Your task to perform on an android device: empty trash in the gmail app Image 0: 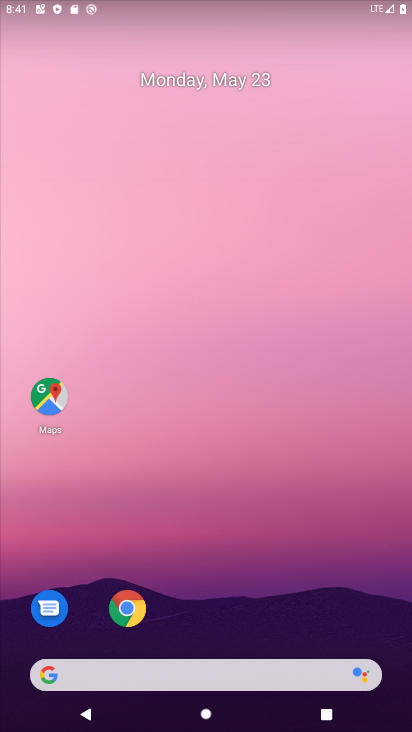
Step 0: drag from (245, 667) to (171, 26)
Your task to perform on an android device: empty trash in the gmail app Image 1: 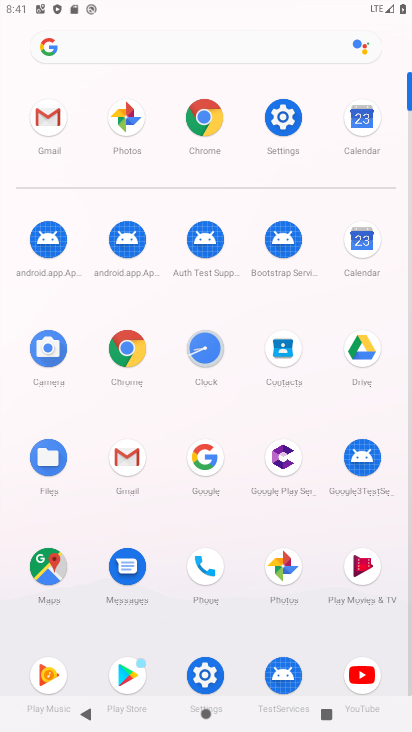
Step 1: click (124, 456)
Your task to perform on an android device: empty trash in the gmail app Image 2: 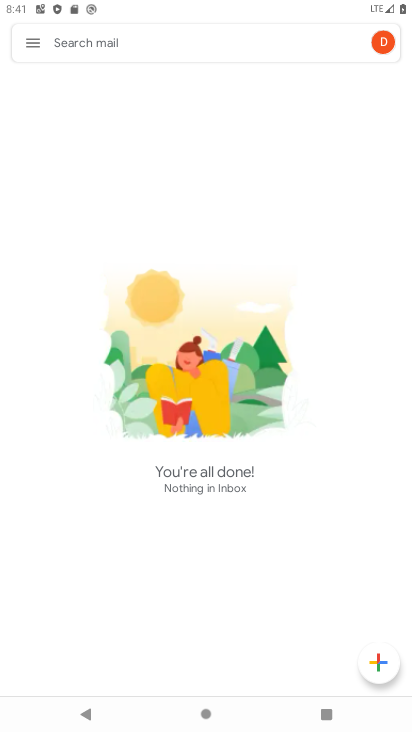
Step 2: click (28, 34)
Your task to perform on an android device: empty trash in the gmail app Image 3: 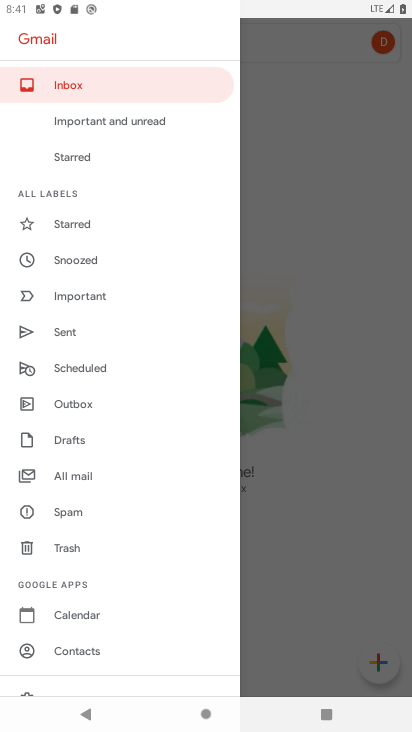
Step 3: click (73, 551)
Your task to perform on an android device: empty trash in the gmail app Image 4: 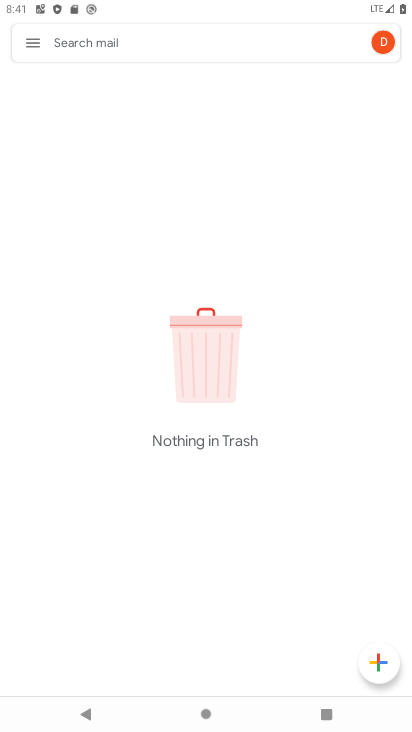
Step 4: task complete